Your task to perform on an android device: change notification settings in the gmail app Image 0: 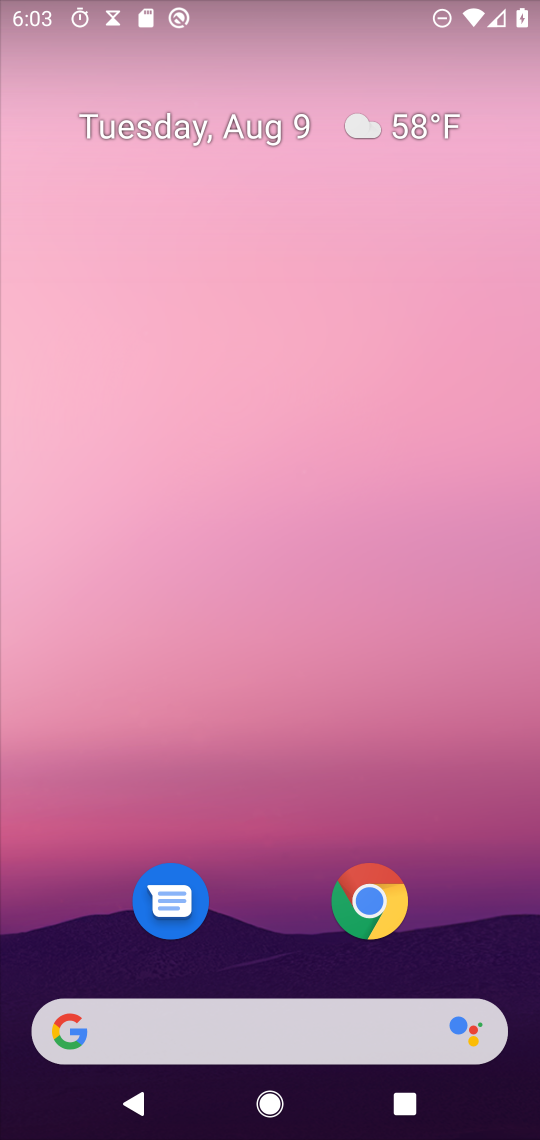
Step 0: drag from (282, 861) to (384, 174)
Your task to perform on an android device: change notification settings in the gmail app Image 1: 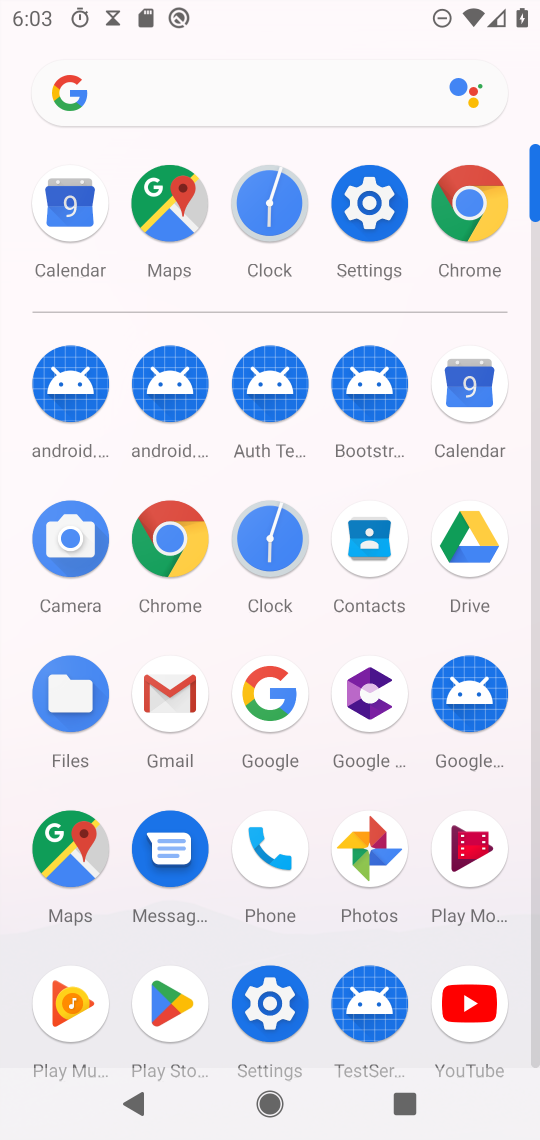
Step 1: click (283, 1005)
Your task to perform on an android device: change notification settings in the gmail app Image 2: 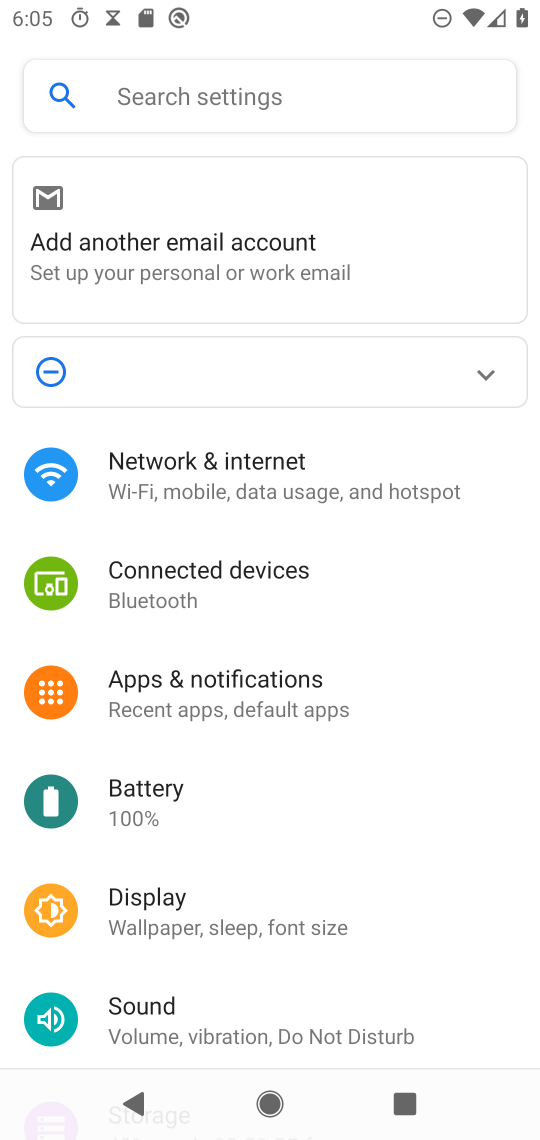
Step 2: press home button
Your task to perform on an android device: change notification settings in the gmail app Image 3: 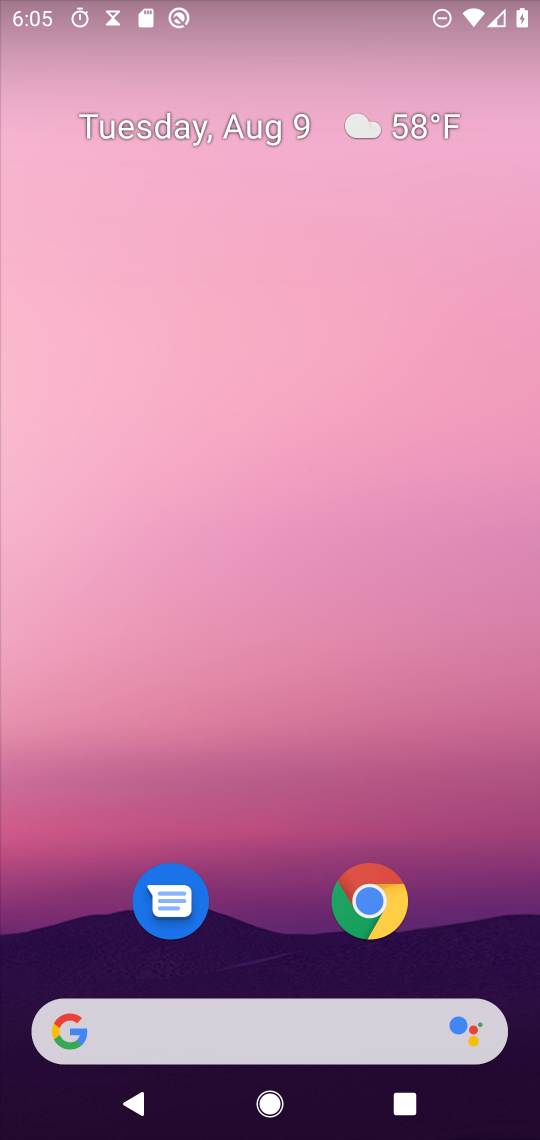
Step 3: drag from (300, 890) to (345, 124)
Your task to perform on an android device: change notification settings in the gmail app Image 4: 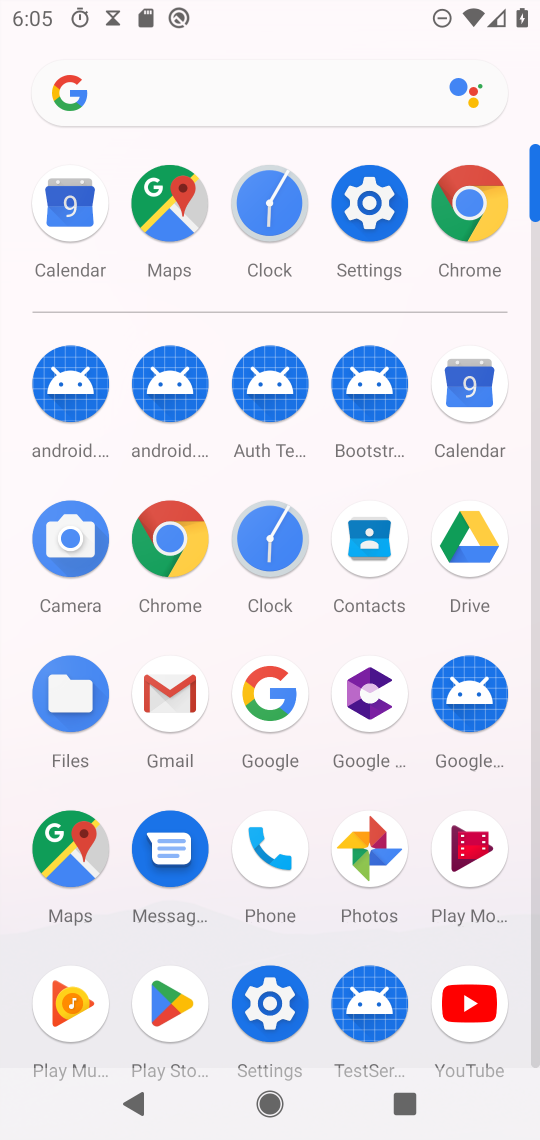
Step 4: click (162, 686)
Your task to perform on an android device: change notification settings in the gmail app Image 5: 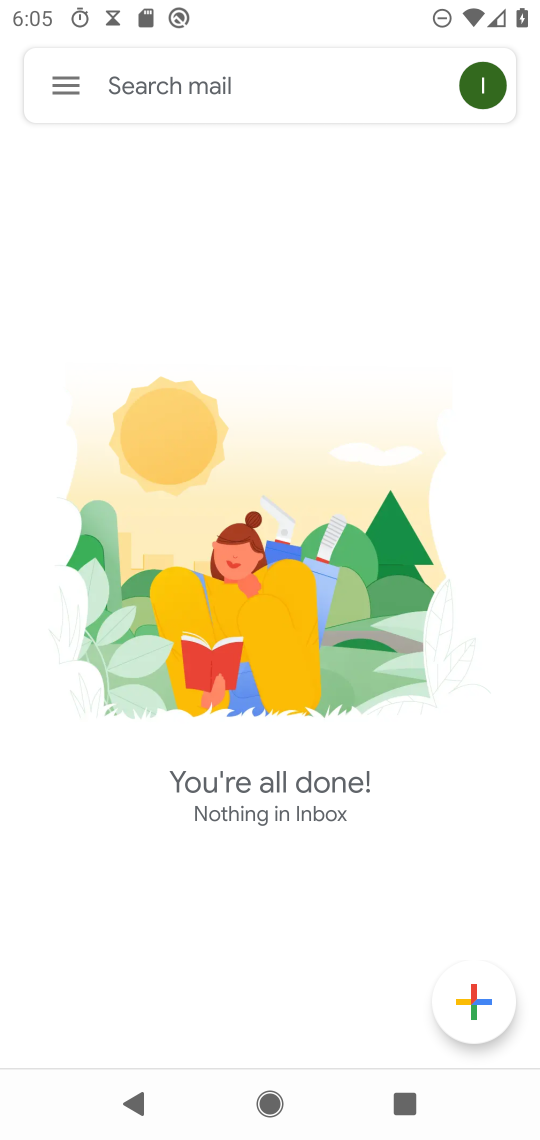
Step 5: click (75, 88)
Your task to perform on an android device: change notification settings in the gmail app Image 6: 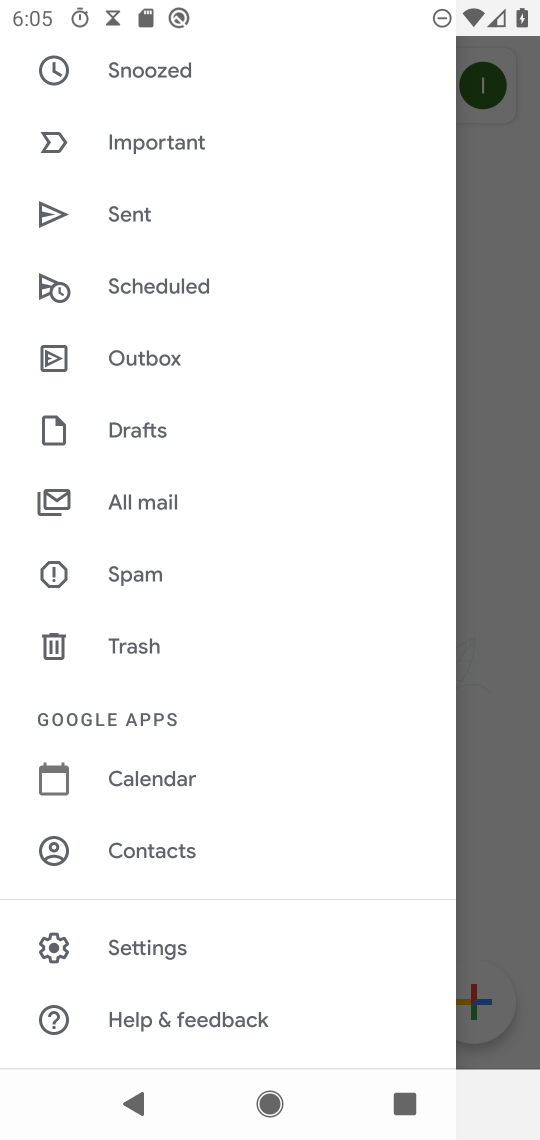
Step 6: click (122, 935)
Your task to perform on an android device: change notification settings in the gmail app Image 7: 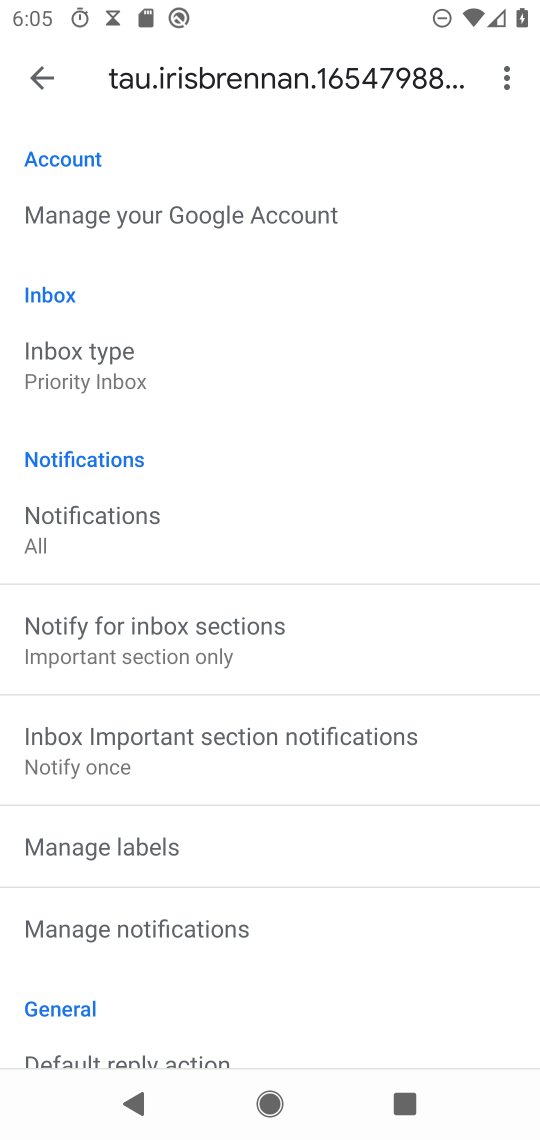
Step 7: task complete